Your task to perform on an android device: check google app version Image 0: 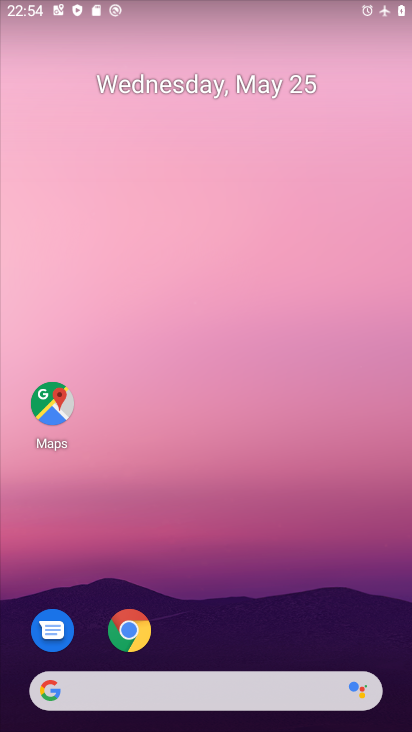
Step 0: drag from (219, 641) to (243, 271)
Your task to perform on an android device: check google app version Image 1: 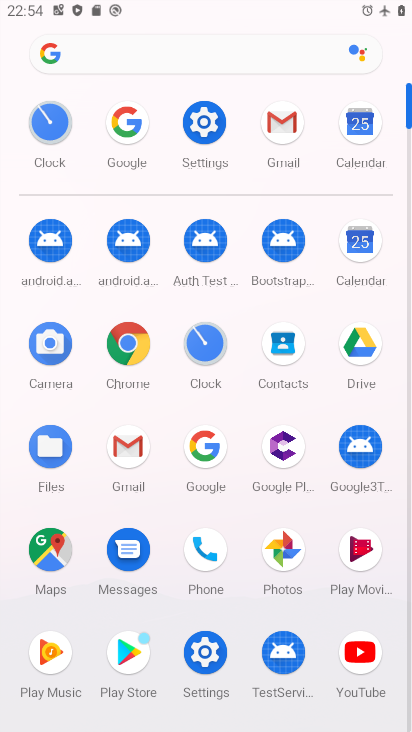
Step 1: click (136, 122)
Your task to perform on an android device: check google app version Image 2: 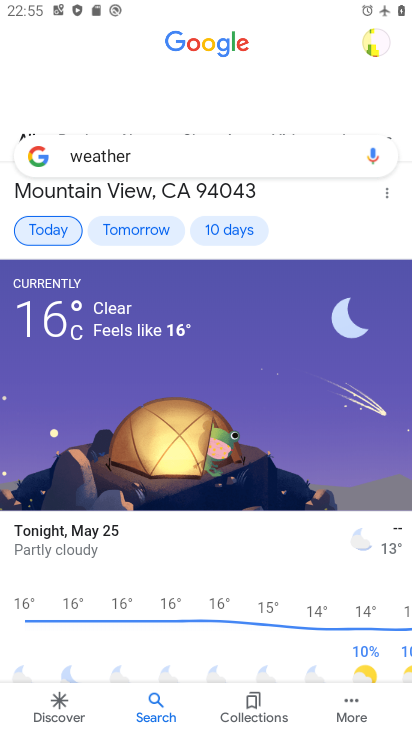
Step 2: press home button
Your task to perform on an android device: check google app version Image 3: 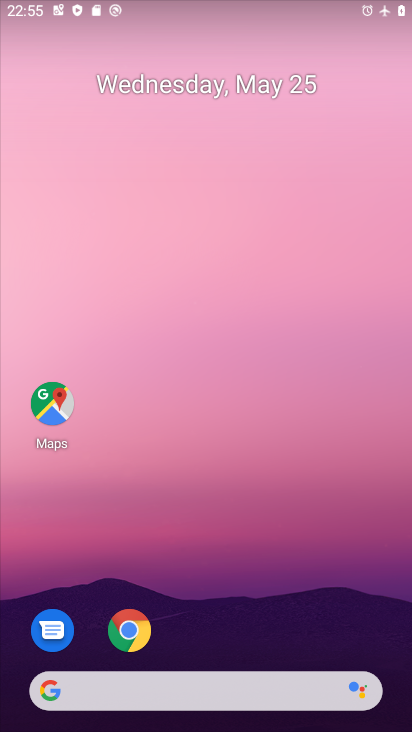
Step 3: drag from (244, 627) to (237, 197)
Your task to perform on an android device: check google app version Image 4: 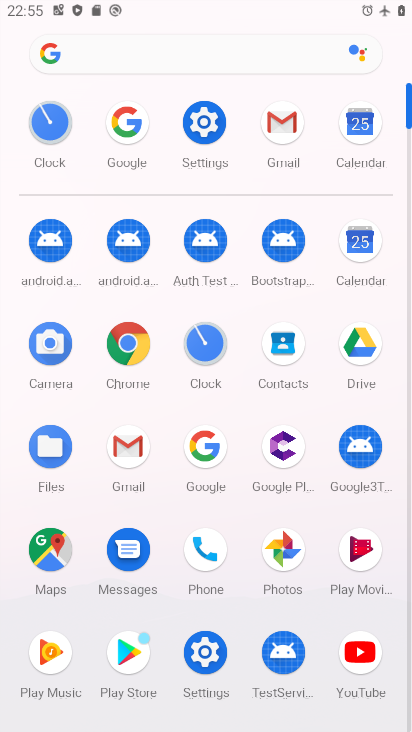
Step 4: click (188, 446)
Your task to perform on an android device: check google app version Image 5: 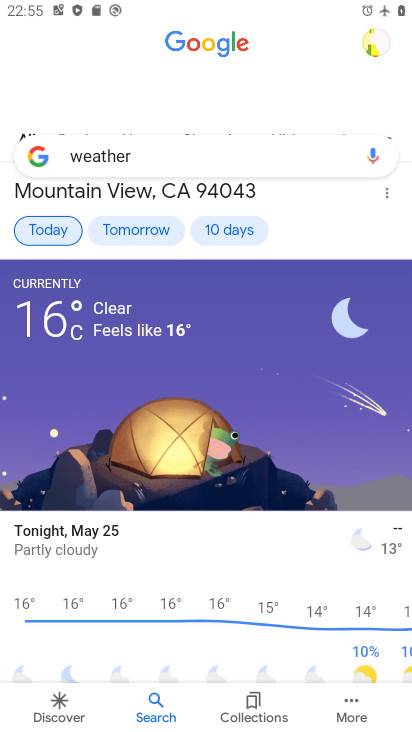
Step 5: click (351, 692)
Your task to perform on an android device: check google app version Image 6: 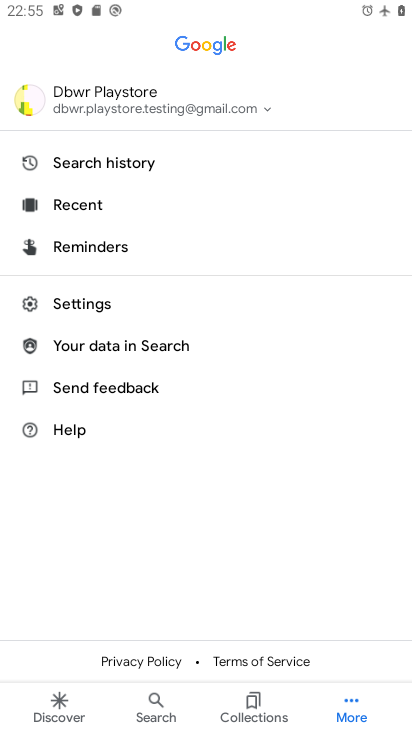
Step 6: click (85, 304)
Your task to perform on an android device: check google app version Image 7: 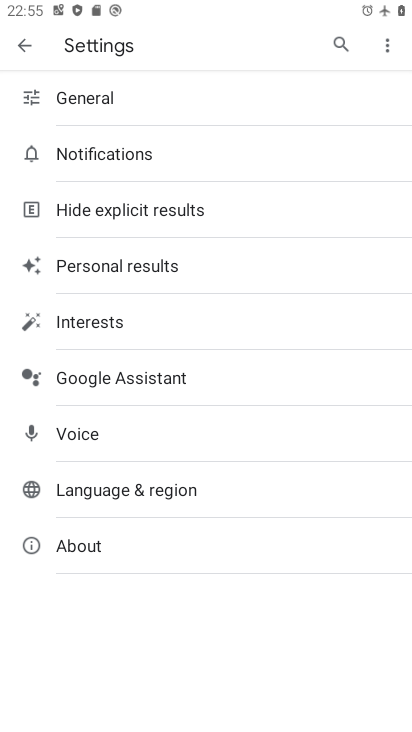
Step 7: click (105, 533)
Your task to perform on an android device: check google app version Image 8: 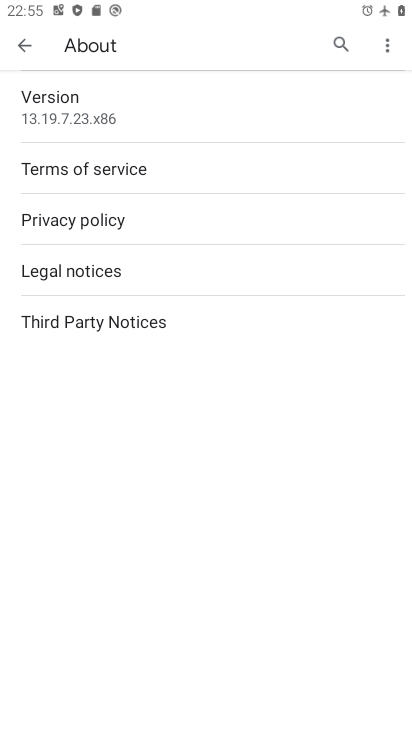
Step 8: click (94, 129)
Your task to perform on an android device: check google app version Image 9: 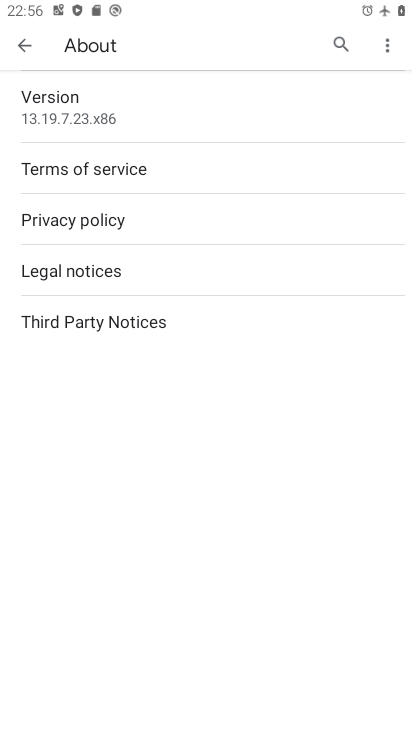
Step 9: click (110, 115)
Your task to perform on an android device: check google app version Image 10: 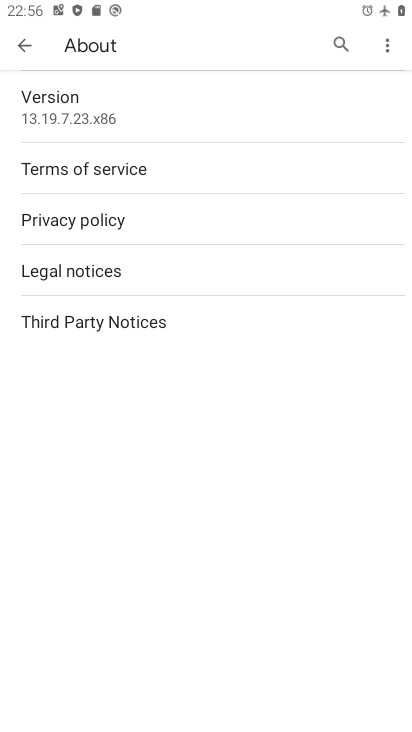
Step 10: task complete